Your task to perform on an android device: Search for seafood restaurants on Google Maps Image 0: 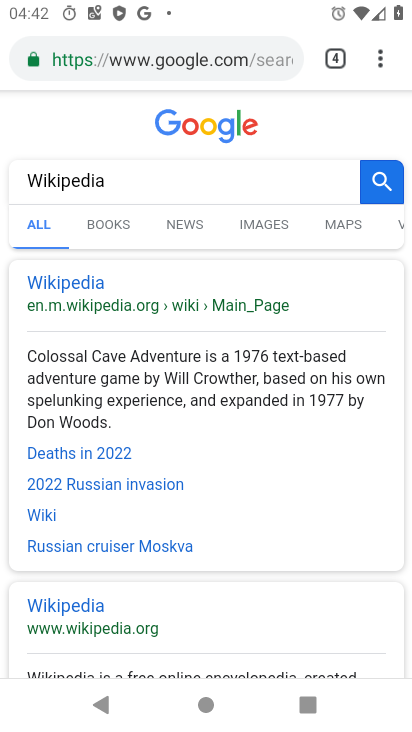
Step 0: press home button
Your task to perform on an android device: Search for seafood restaurants on Google Maps Image 1: 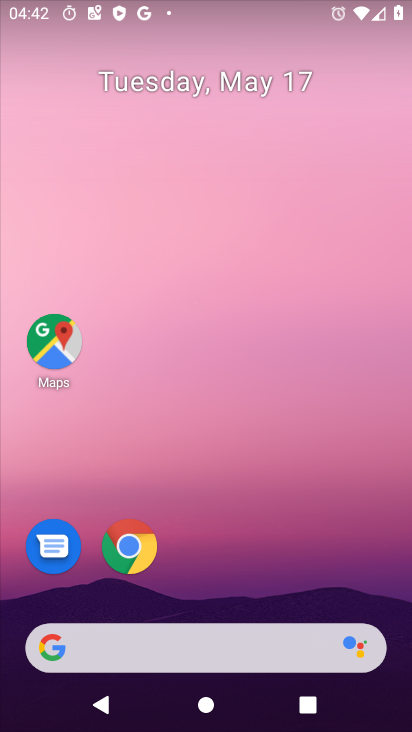
Step 1: click (76, 340)
Your task to perform on an android device: Search for seafood restaurants on Google Maps Image 2: 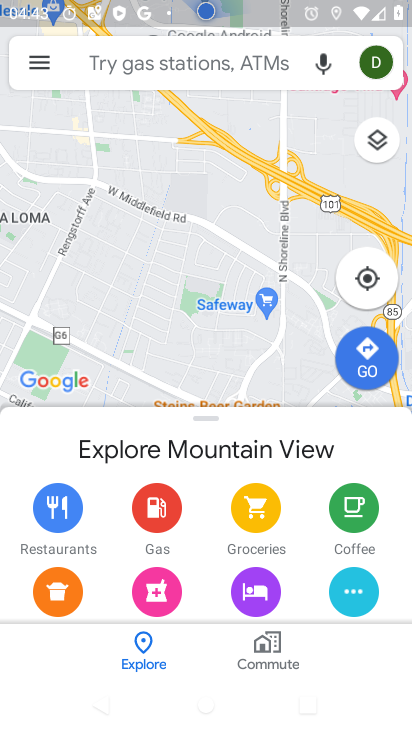
Step 2: click (207, 66)
Your task to perform on an android device: Search for seafood restaurants on Google Maps Image 3: 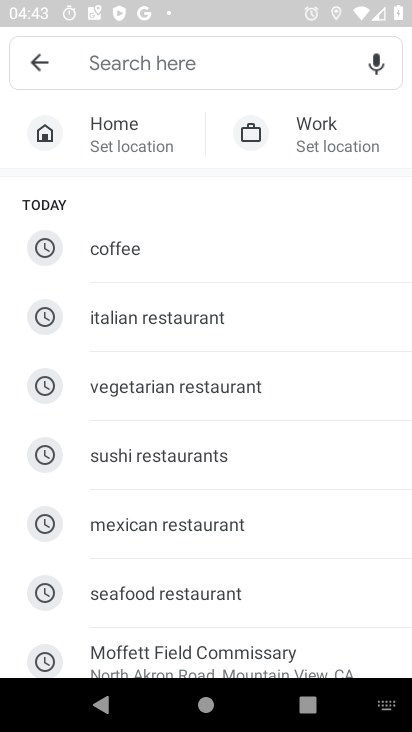
Step 3: type " seafood restaurants"
Your task to perform on an android device: Search for seafood restaurants on Google Maps Image 4: 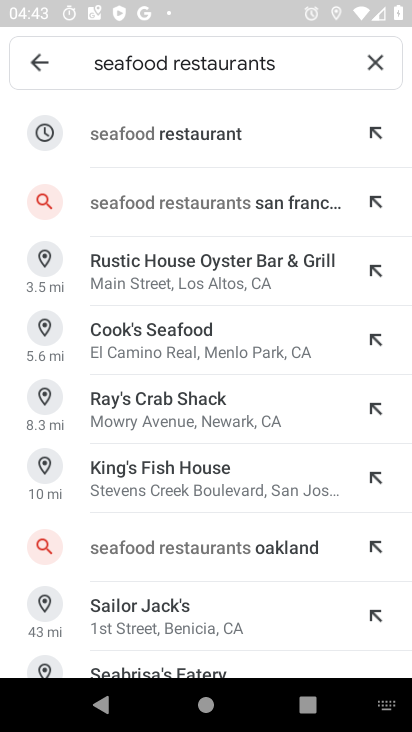
Step 4: click (165, 137)
Your task to perform on an android device: Search for seafood restaurants on Google Maps Image 5: 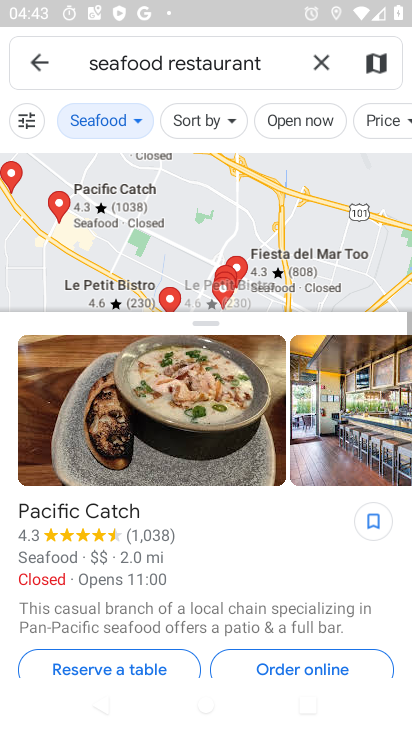
Step 5: task complete